Your task to perform on an android device: turn pop-ups off in chrome Image 0: 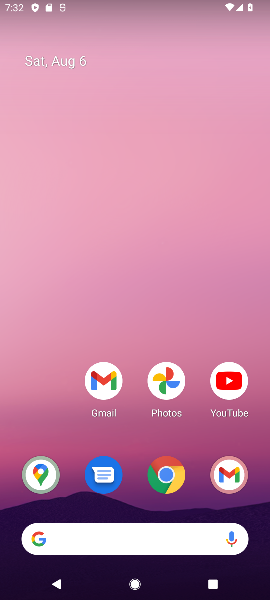
Step 0: click (166, 461)
Your task to perform on an android device: turn pop-ups off in chrome Image 1: 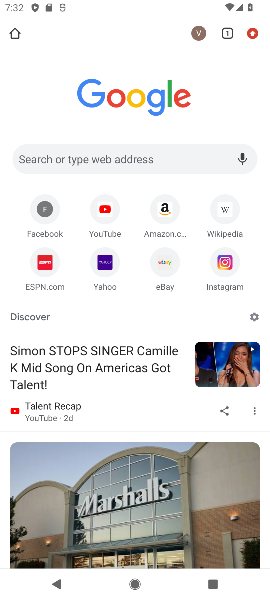
Step 1: drag from (248, 40) to (163, 339)
Your task to perform on an android device: turn pop-ups off in chrome Image 2: 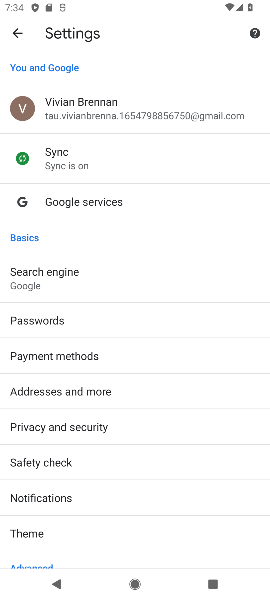
Step 2: drag from (112, 457) to (116, 192)
Your task to perform on an android device: turn pop-ups off in chrome Image 3: 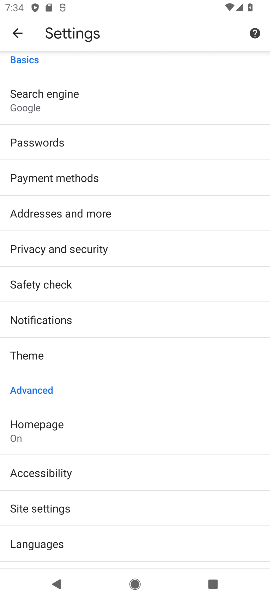
Step 3: click (61, 502)
Your task to perform on an android device: turn pop-ups off in chrome Image 4: 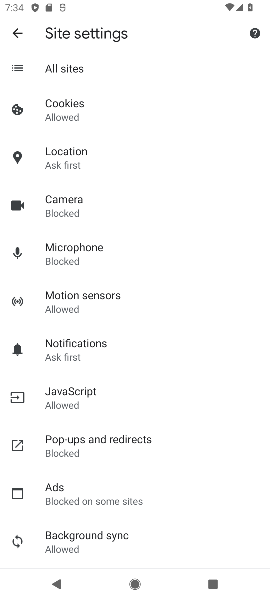
Step 4: click (140, 441)
Your task to perform on an android device: turn pop-ups off in chrome Image 5: 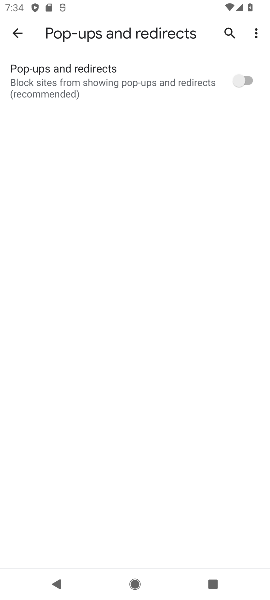
Step 5: task complete